Your task to perform on an android device: choose inbox layout in the gmail app Image 0: 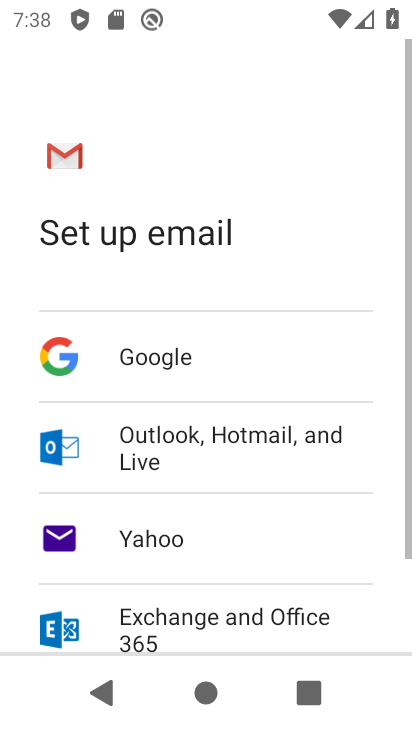
Step 0: press home button
Your task to perform on an android device: choose inbox layout in the gmail app Image 1: 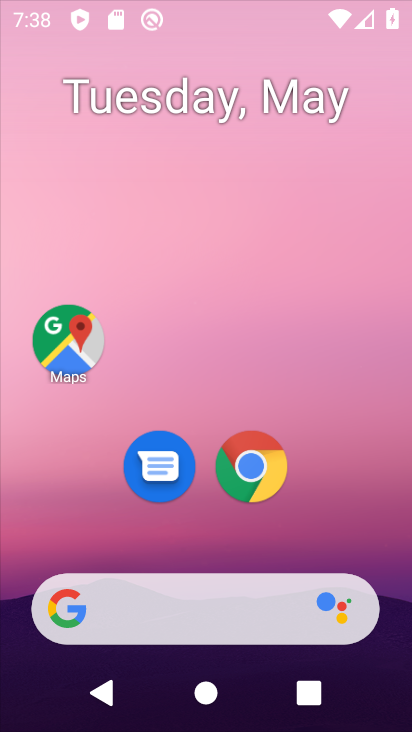
Step 1: drag from (255, 583) to (313, 72)
Your task to perform on an android device: choose inbox layout in the gmail app Image 2: 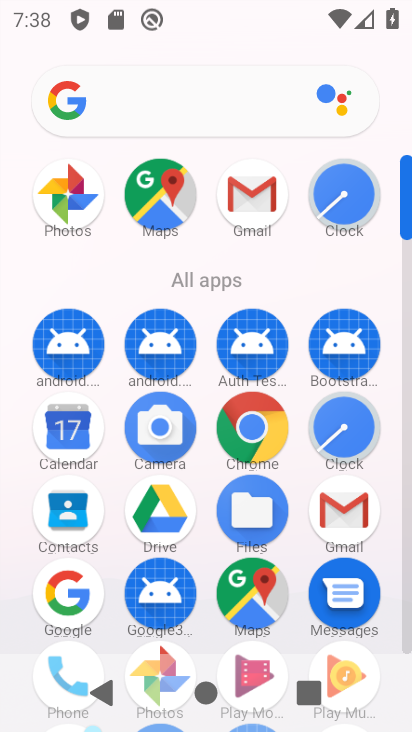
Step 2: drag from (245, 611) to (292, 5)
Your task to perform on an android device: choose inbox layout in the gmail app Image 3: 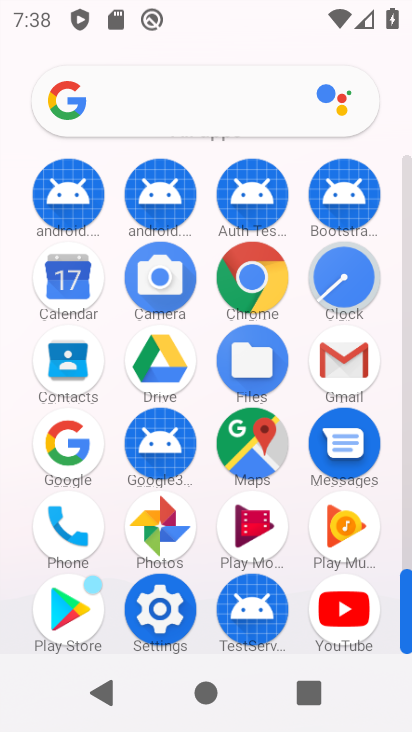
Step 3: click (338, 379)
Your task to perform on an android device: choose inbox layout in the gmail app Image 4: 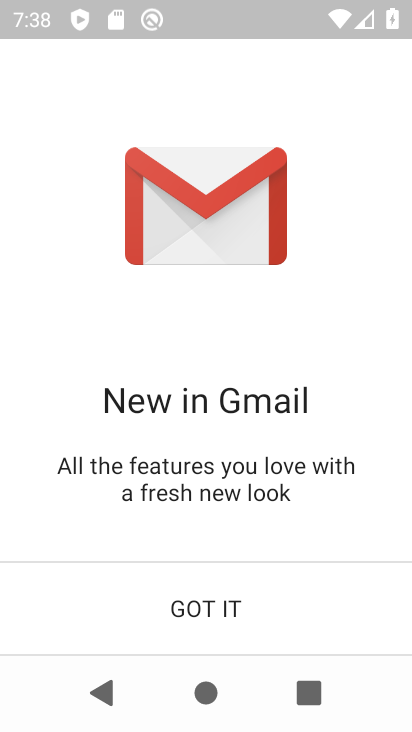
Step 4: click (214, 592)
Your task to perform on an android device: choose inbox layout in the gmail app Image 5: 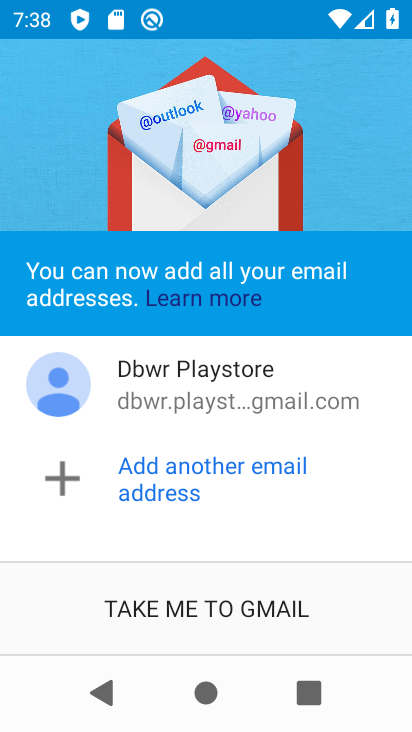
Step 5: click (214, 599)
Your task to perform on an android device: choose inbox layout in the gmail app Image 6: 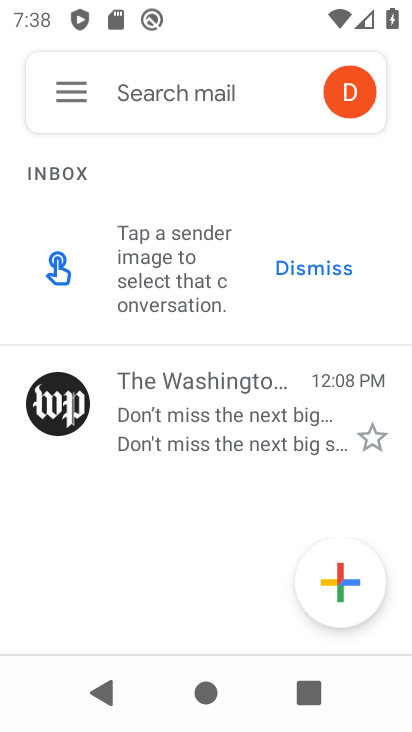
Step 6: click (74, 97)
Your task to perform on an android device: choose inbox layout in the gmail app Image 7: 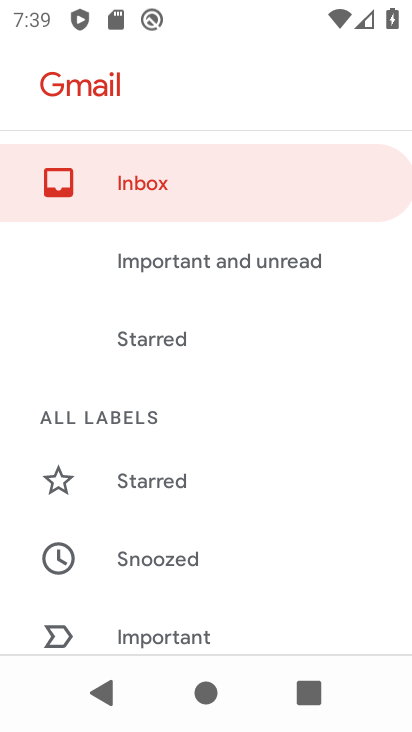
Step 7: drag from (253, 514) to (307, 21)
Your task to perform on an android device: choose inbox layout in the gmail app Image 8: 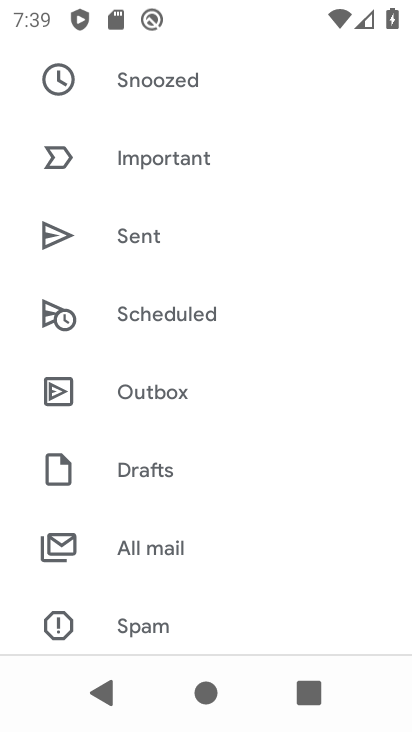
Step 8: drag from (154, 497) to (293, 3)
Your task to perform on an android device: choose inbox layout in the gmail app Image 9: 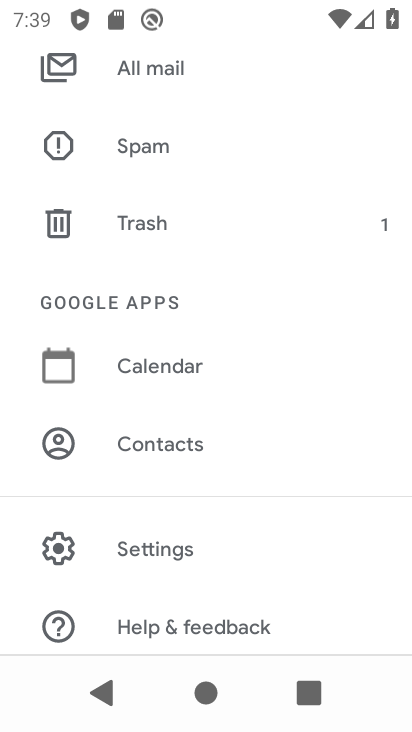
Step 9: click (197, 549)
Your task to perform on an android device: choose inbox layout in the gmail app Image 10: 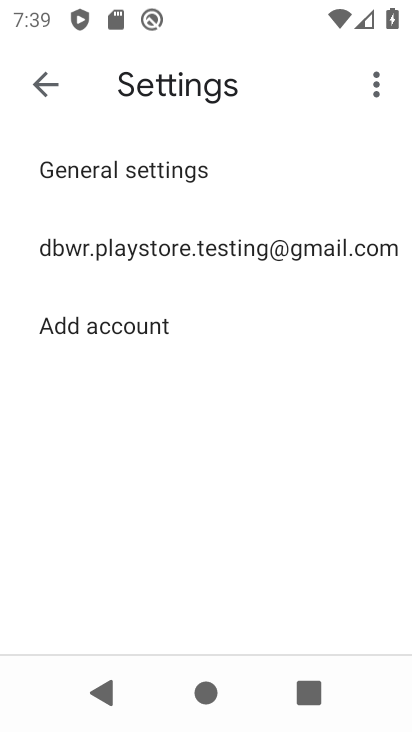
Step 10: task complete